Your task to perform on an android device: Go to Yahoo.com Image 0: 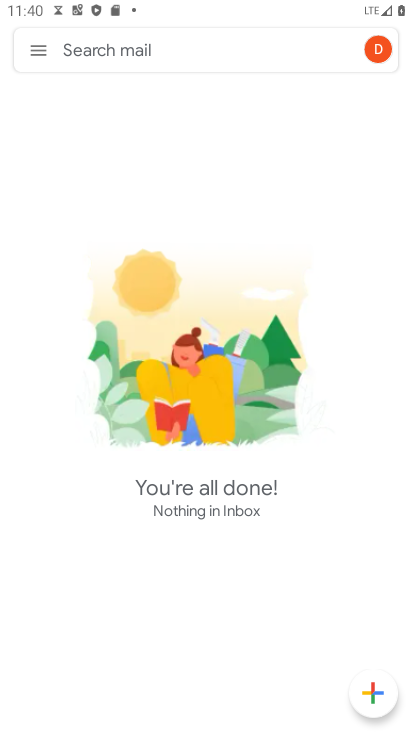
Step 0: press home button
Your task to perform on an android device: Go to Yahoo.com Image 1: 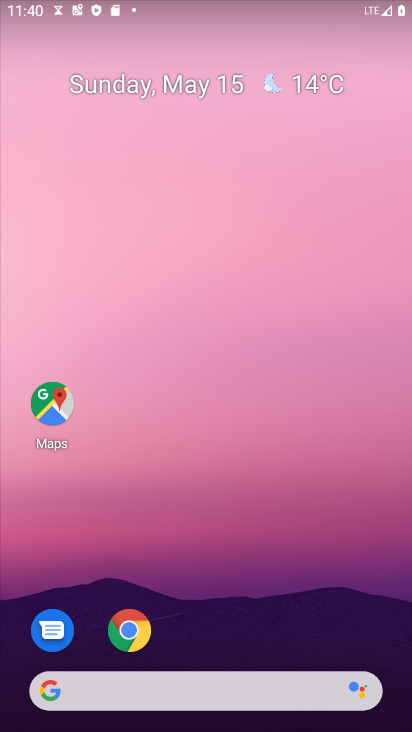
Step 1: click (118, 635)
Your task to perform on an android device: Go to Yahoo.com Image 2: 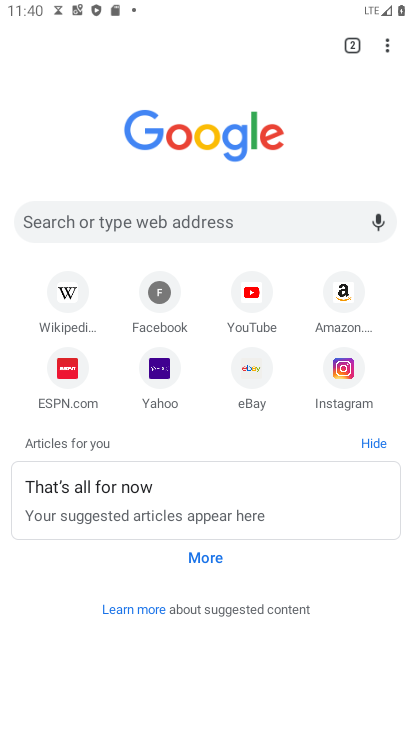
Step 2: click (151, 372)
Your task to perform on an android device: Go to Yahoo.com Image 3: 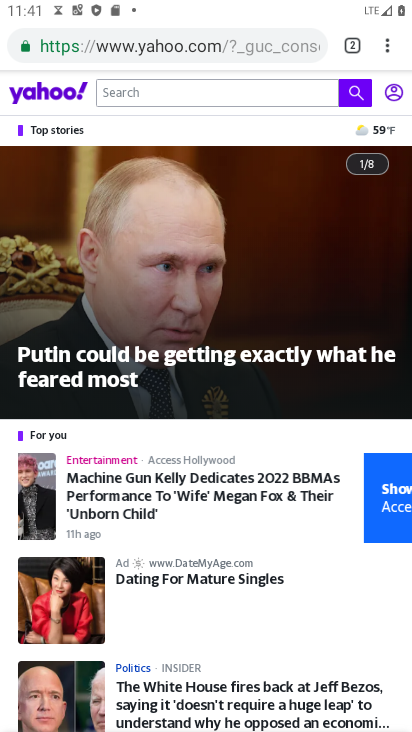
Step 3: task complete